Your task to perform on an android device: Open ESPN.com Image 0: 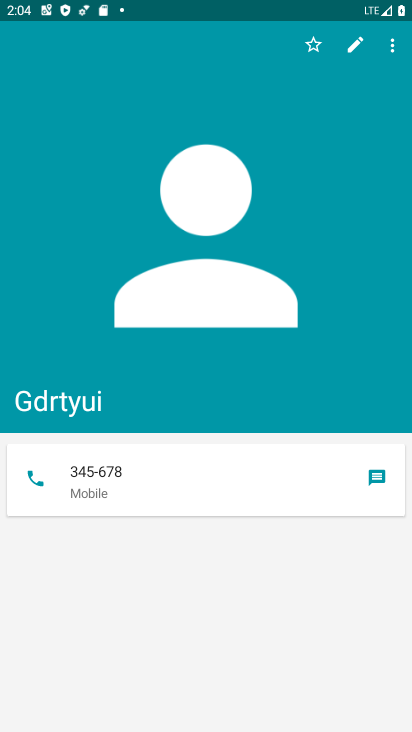
Step 0: press back button
Your task to perform on an android device: Open ESPN.com Image 1: 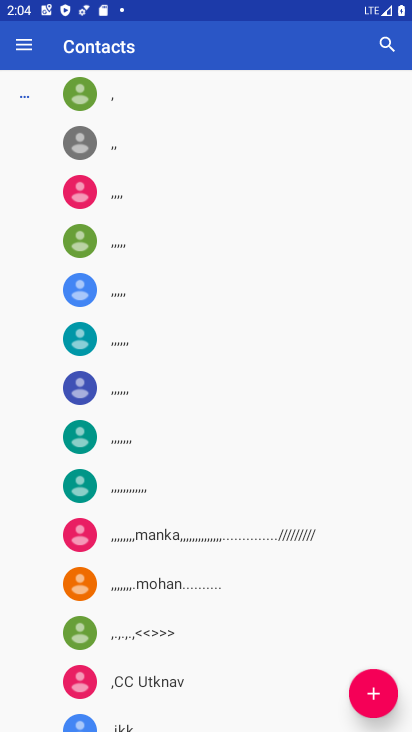
Step 1: press back button
Your task to perform on an android device: Open ESPN.com Image 2: 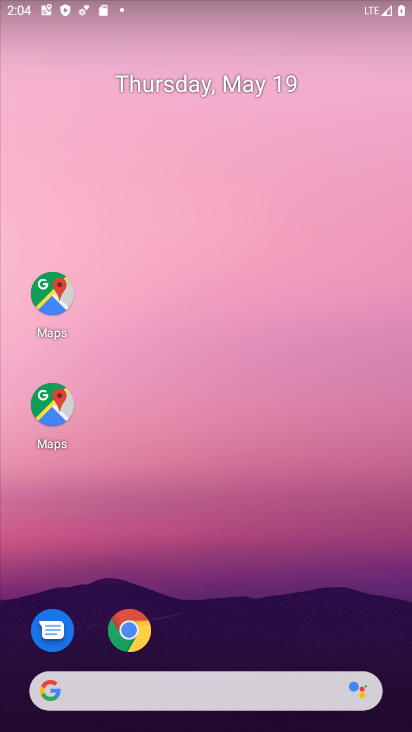
Step 2: drag from (295, 488) to (232, 62)
Your task to perform on an android device: Open ESPN.com Image 3: 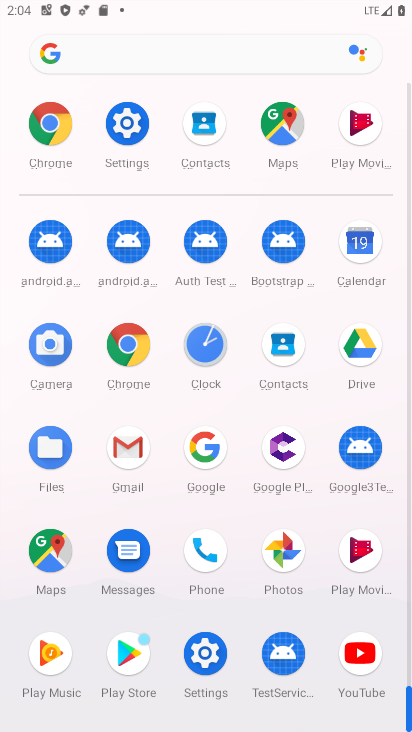
Step 3: click (125, 342)
Your task to perform on an android device: Open ESPN.com Image 4: 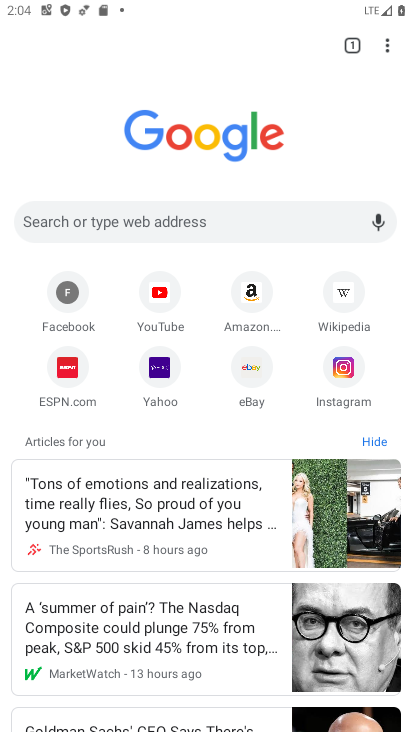
Step 4: click (72, 365)
Your task to perform on an android device: Open ESPN.com Image 5: 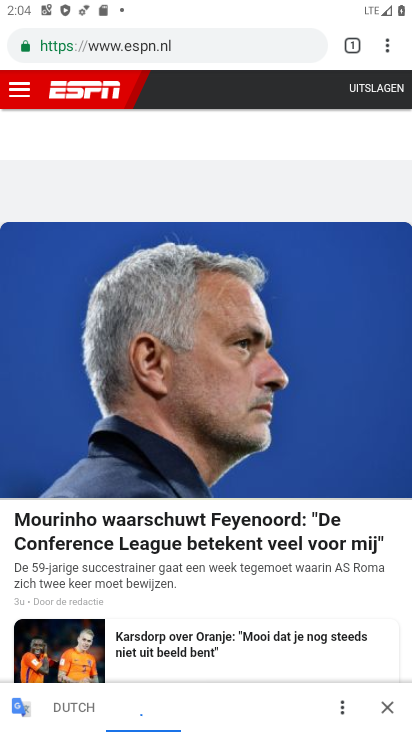
Step 5: drag from (270, 496) to (269, 239)
Your task to perform on an android device: Open ESPN.com Image 6: 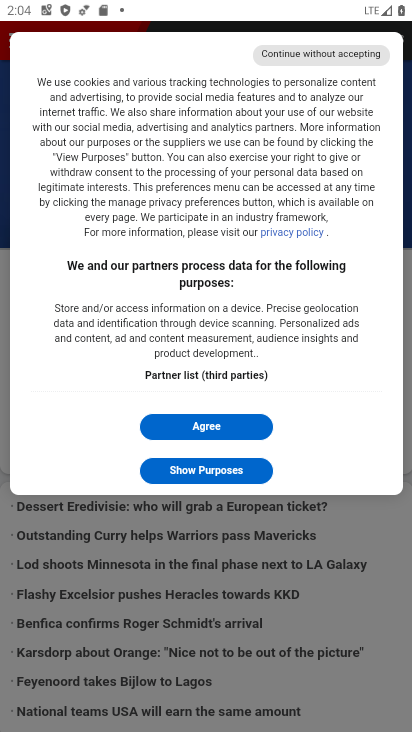
Step 6: click (203, 427)
Your task to perform on an android device: Open ESPN.com Image 7: 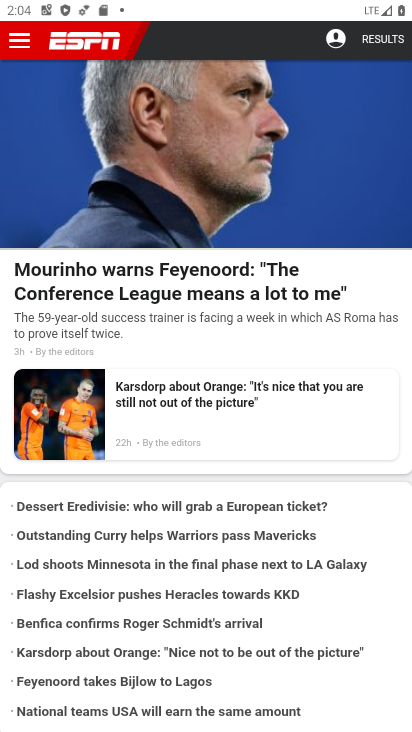
Step 7: task complete